Your task to perform on an android device: clear history in the chrome app Image 0: 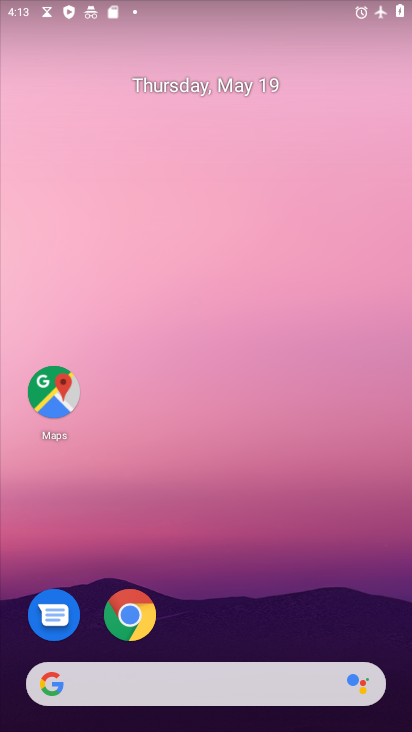
Step 0: drag from (298, 601) to (172, 42)
Your task to perform on an android device: clear history in the chrome app Image 1: 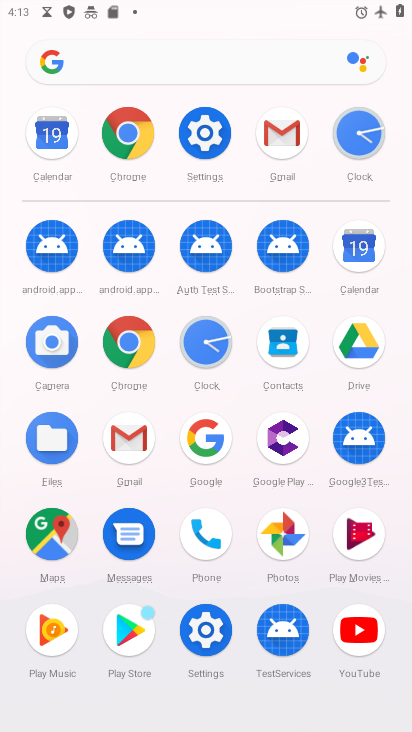
Step 1: click (130, 139)
Your task to perform on an android device: clear history in the chrome app Image 2: 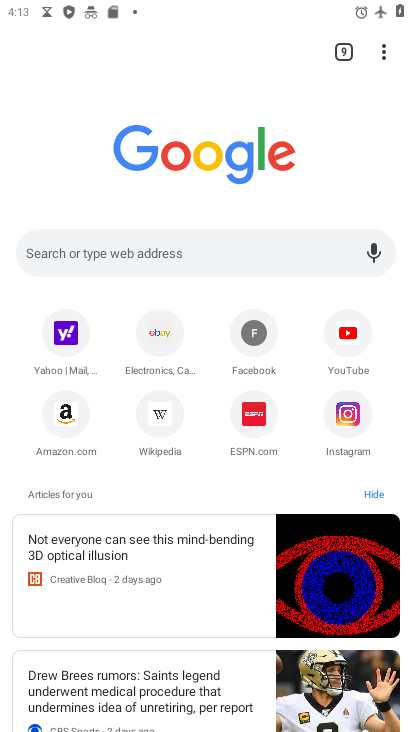
Step 2: drag from (386, 52) to (186, 434)
Your task to perform on an android device: clear history in the chrome app Image 3: 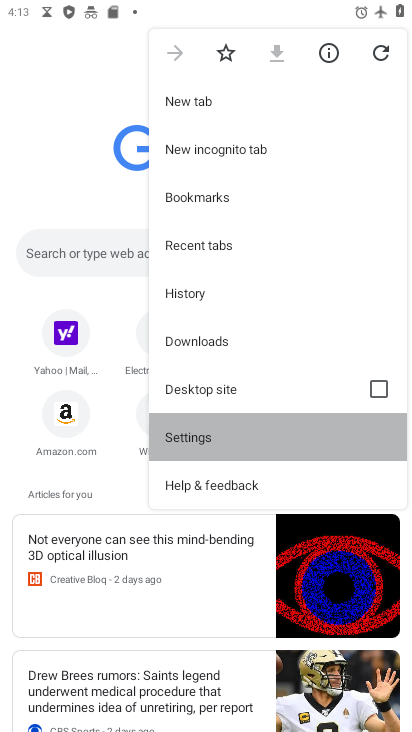
Step 3: click (187, 433)
Your task to perform on an android device: clear history in the chrome app Image 4: 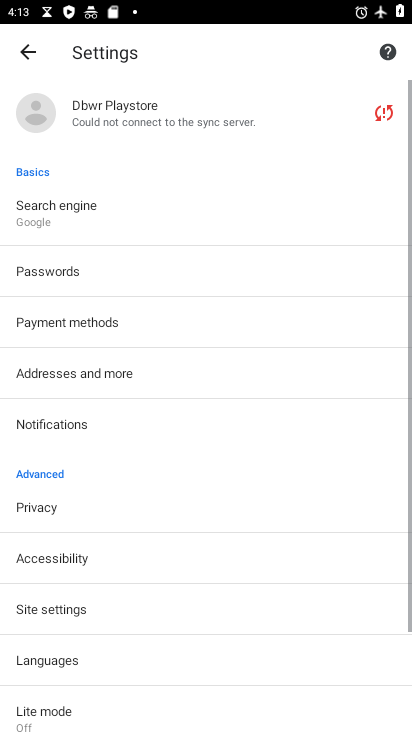
Step 4: click (23, 48)
Your task to perform on an android device: clear history in the chrome app Image 5: 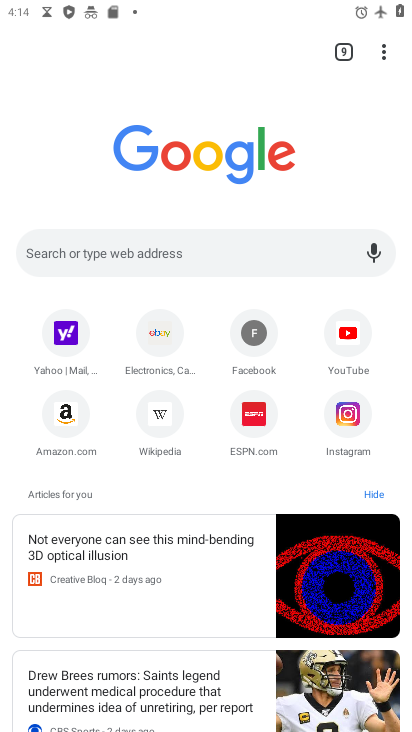
Step 5: drag from (382, 55) to (191, 300)
Your task to perform on an android device: clear history in the chrome app Image 6: 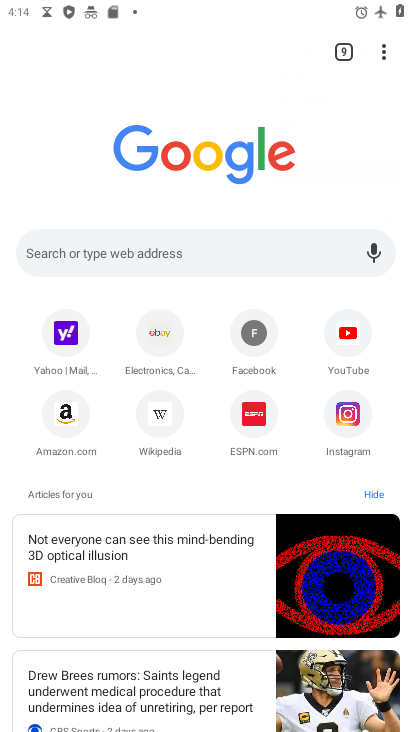
Step 6: click (191, 300)
Your task to perform on an android device: clear history in the chrome app Image 7: 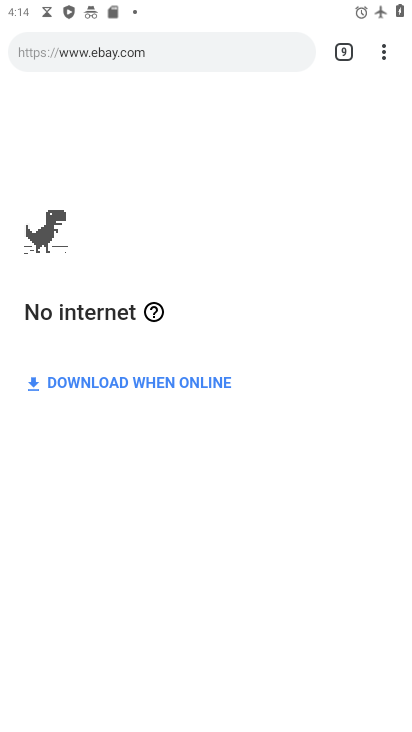
Step 7: task complete